Your task to perform on an android device: Search for vegetarian restaurants on Maps Image 0: 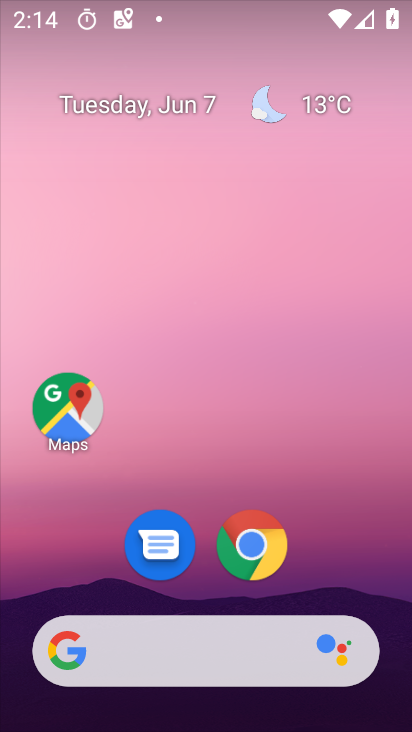
Step 0: drag from (354, 568) to (368, 626)
Your task to perform on an android device: Search for vegetarian restaurants on Maps Image 1: 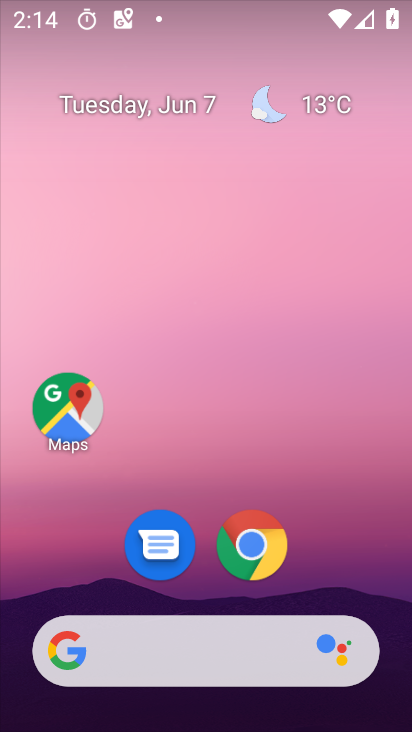
Step 1: click (77, 410)
Your task to perform on an android device: Search for vegetarian restaurants on Maps Image 2: 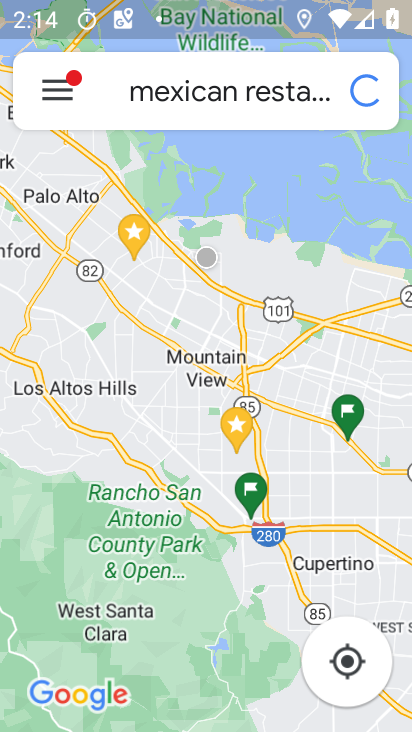
Step 2: click (269, 90)
Your task to perform on an android device: Search for vegetarian restaurants on Maps Image 3: 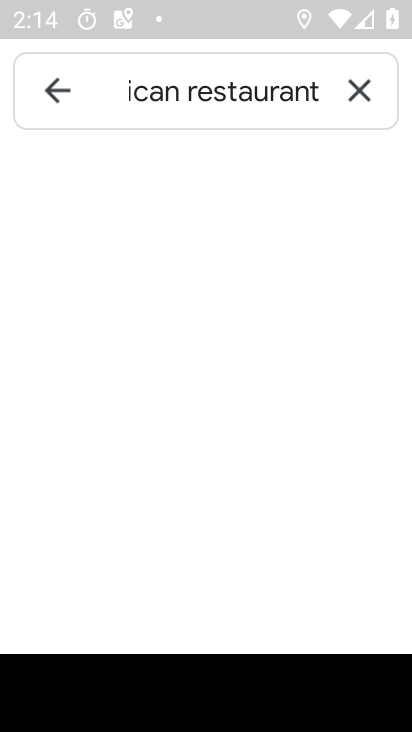
Step 3: click (368, 92)
Your task to perform on an android device: Search for vegetarian restaurants on Maps Image 4: 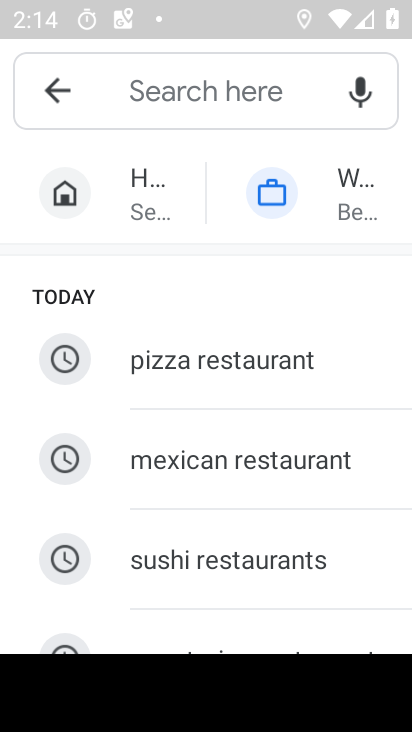
Step 4: drag from (220, 519) to (238, 213)
Your task to perform on an android device: Search for vegetarian restaurants on Maps Image 5: 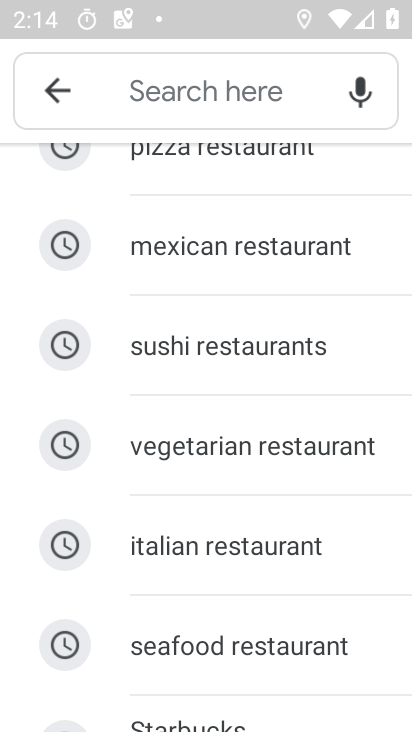
Step 5: click (246, 435)
Your task to perform on an android device: Search for vegetarian restaurants on Maps Image 6: 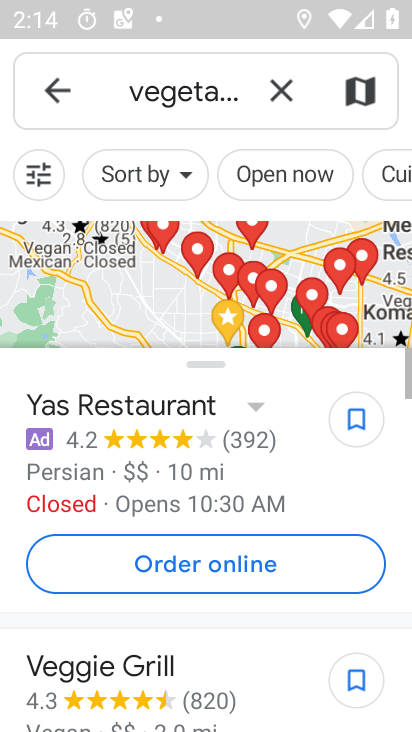
Step 6: task complete